Your task to perform on an android device: Open Android settings Image 0: 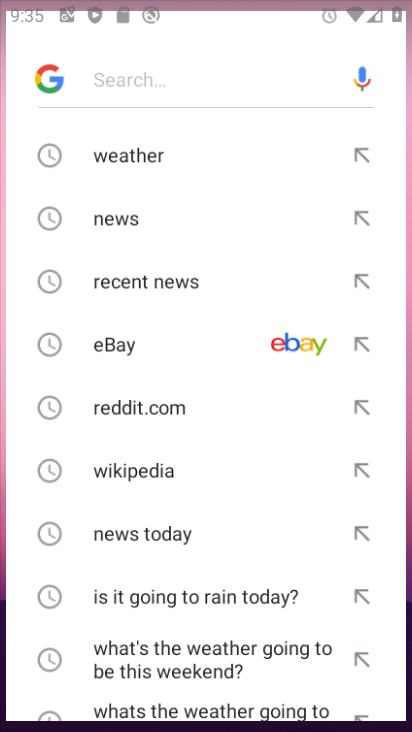
Step 0: drag from (341, 622) to (338, 247)
Your task to perform on an android device: Open Android settings Image 1: 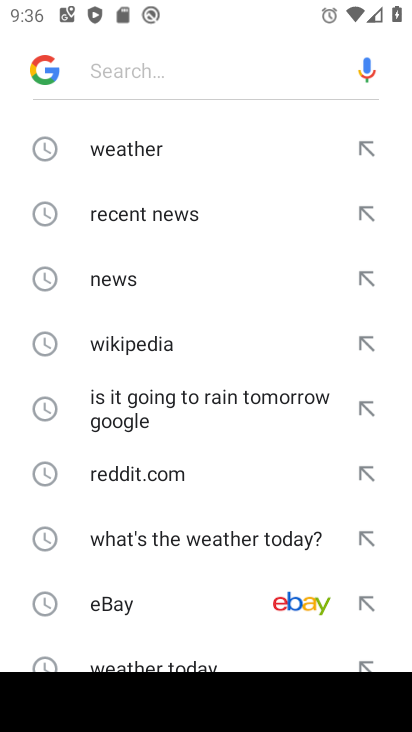
Step 1: press home button
Your task to perform on an android device: Open Android settings Image 2: 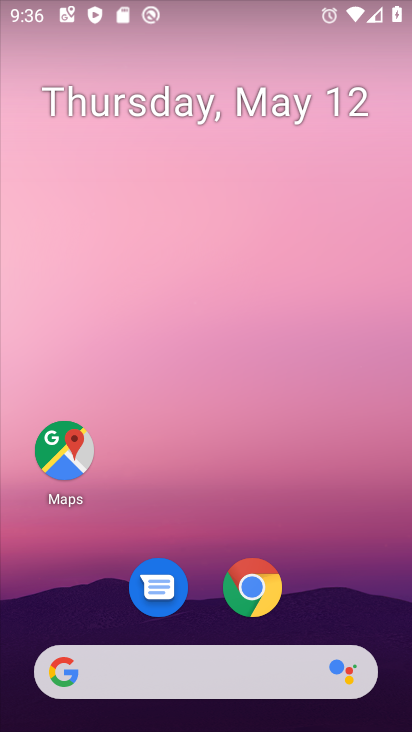
Step 2: drag from (276, 566) to (322, 214)
Your task to perform on an android device: Open Android settings Image 3: 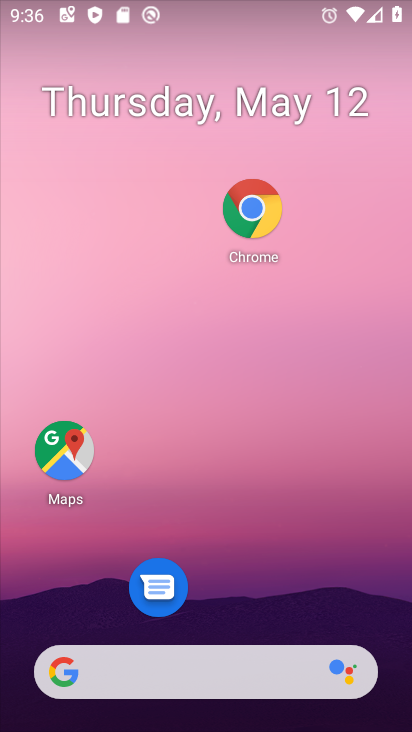
Step 3: drag from (308, 603) to (306, 238)
Your task to perform on an android device: Open Android settings Image 4: 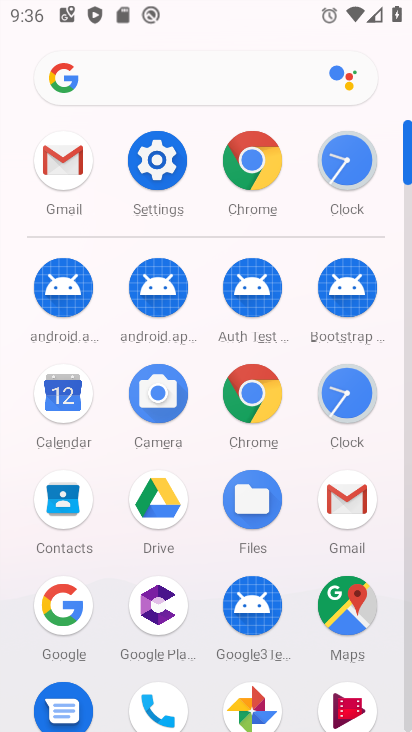
Step 4: click (136, 154)
Your task to perform on an android device: Open Android settings Image 5: 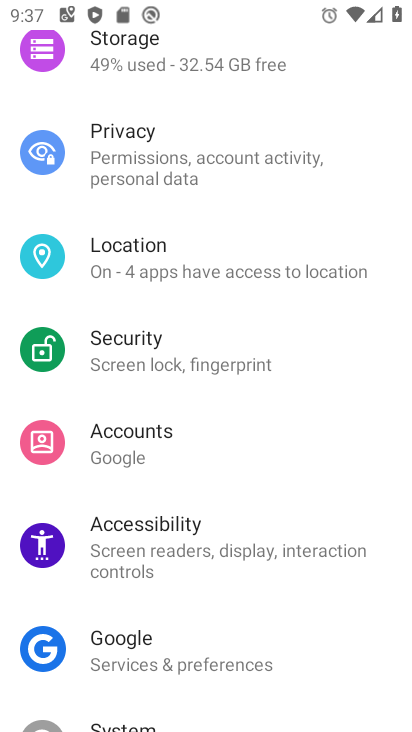
Step 5: task complete